Your task to perform on an android device: Show the shopping cart on bestbuy. Search for alienware aurora on bestbuy, select the first entry, and add it to the cart. Image 0: 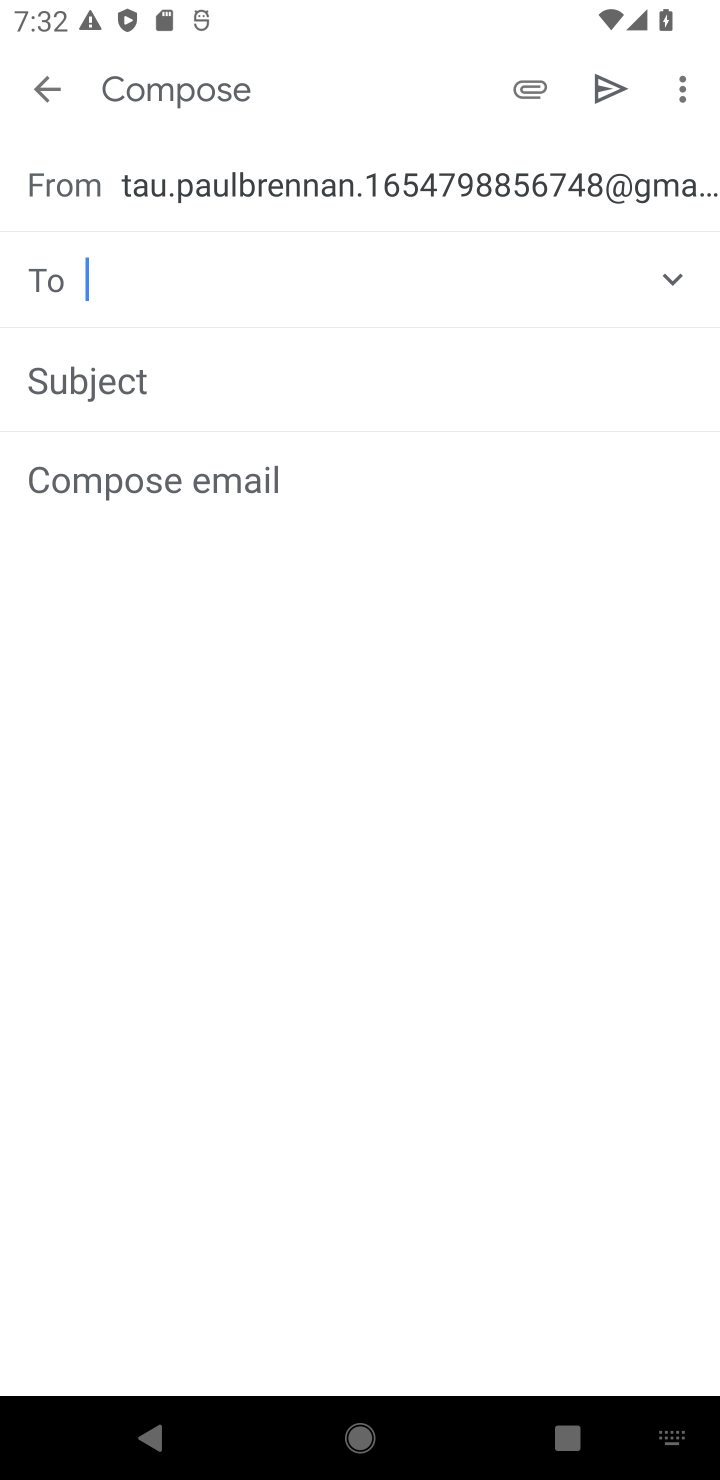
Step 0: press home button
Your task to perform on an android device: Show the shopping cart on bestbuy. Search for alienware aurora on bestbuy, select the first entry, and add it to the cart. Image 1: 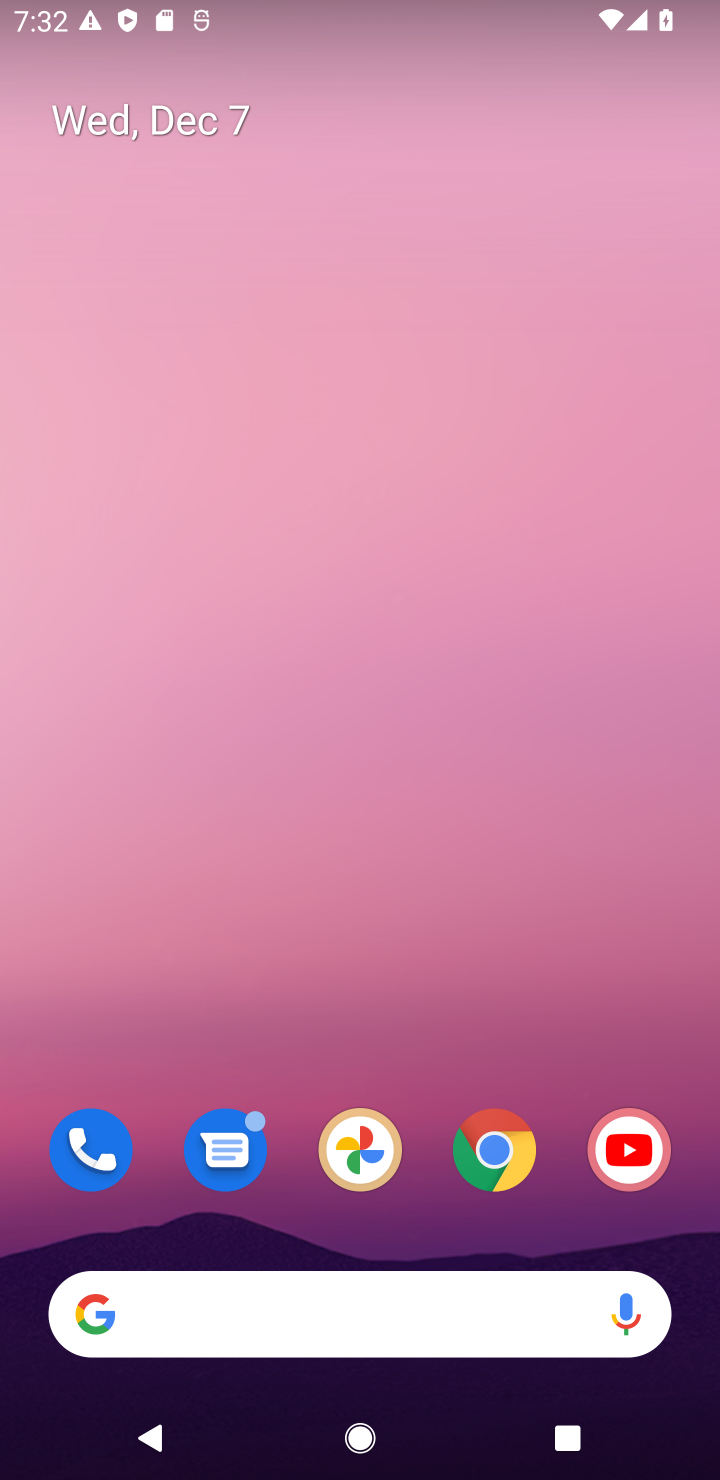
Step 1: click (491, 1120)
Your task to perform on an android device: Show the shopping cart on bestbuy. Search for alienware aurora on bestbuy, select the first entry, and add it to the cart. Image 2: 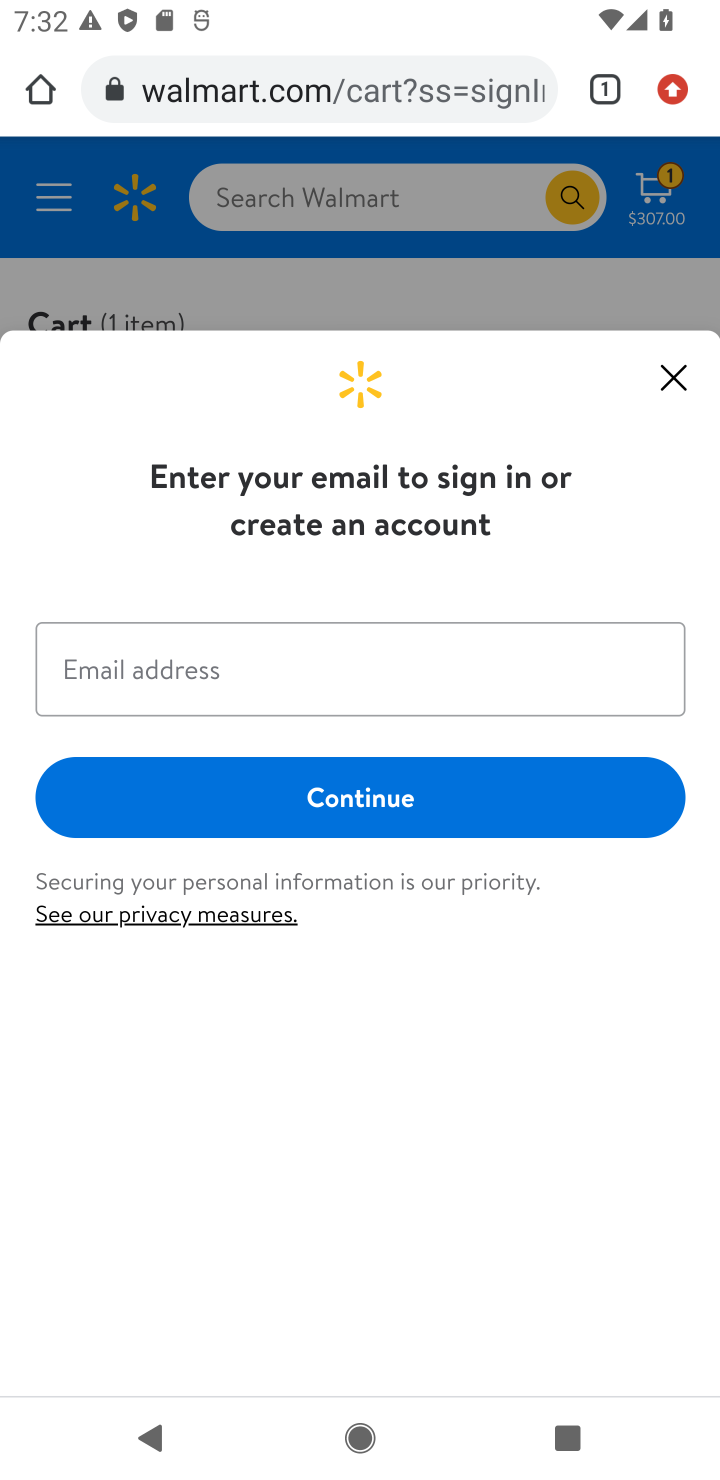
Step 2: click (311, 92)
Your task to perform on an android device: Show the shopping cart on bestbuy. Search for alienware aurora on bestbuy, select the first entry, and add it to the cart. Image 3: 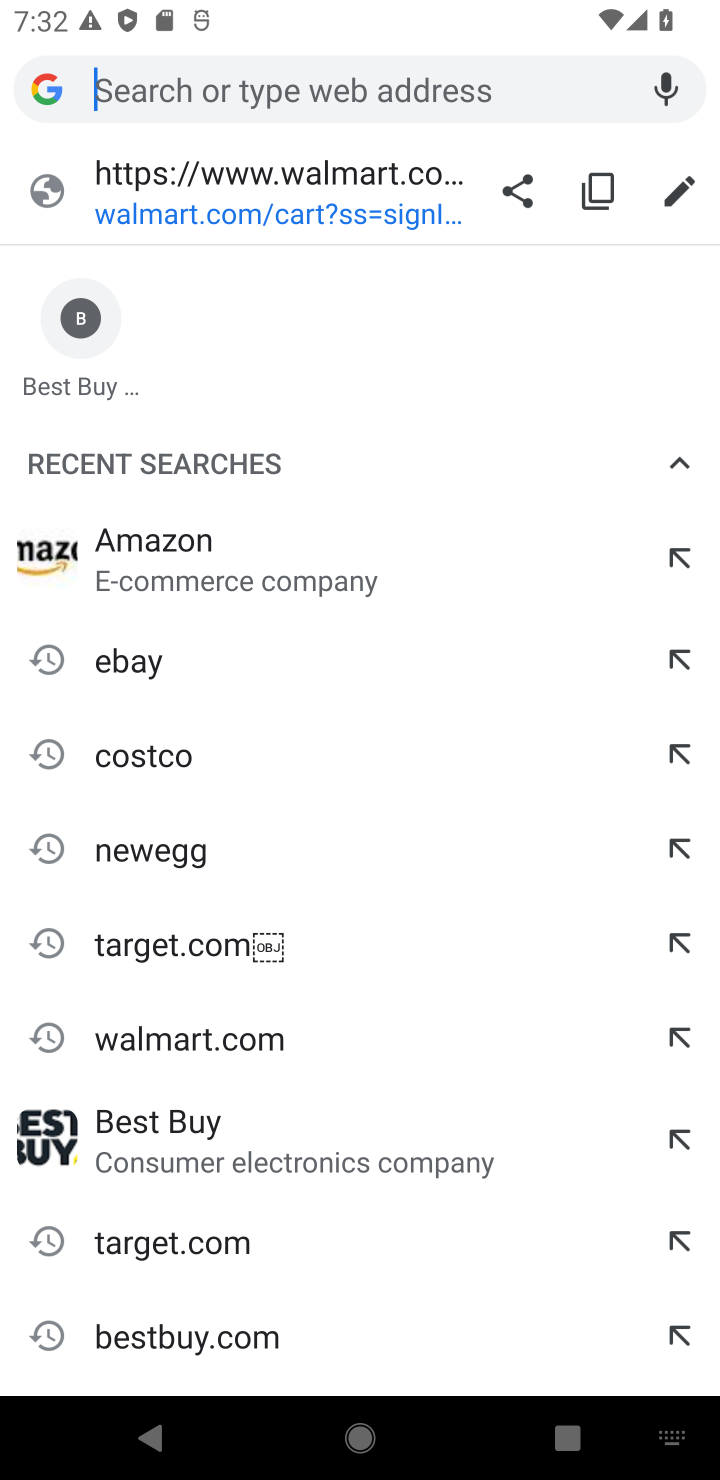
Step 3: click (237, 1135)
Your task to perform on an android device: Show the shopping cart on bestbuy. Search for alienware aurora on bestbuy, select the first entry, and add it to the cart. Image 4: 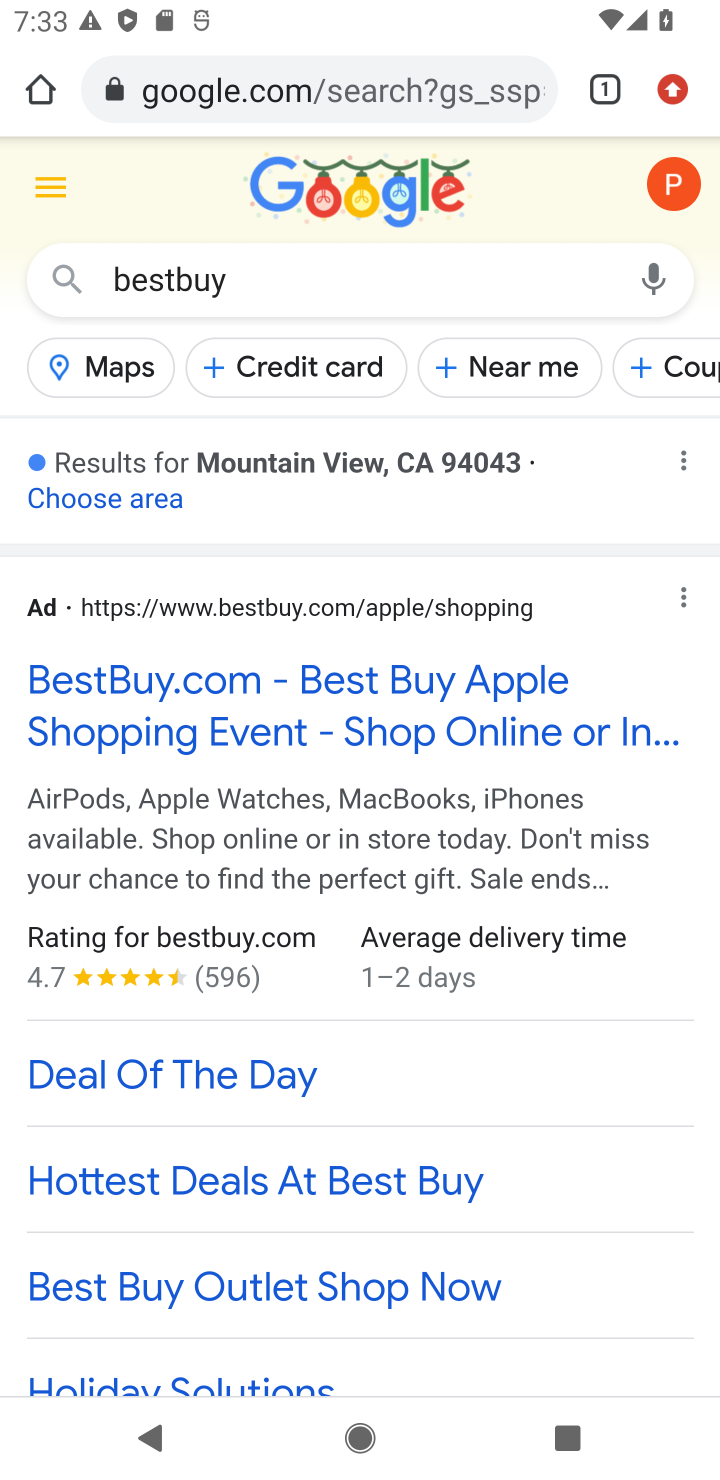
Step 4: click (201, 685)
Your task to perform on an android device: Show the shopping cart on bestbuy. Search for alienware aurora on bestbuy, select the first entry, and add it to the cart. Image 5: 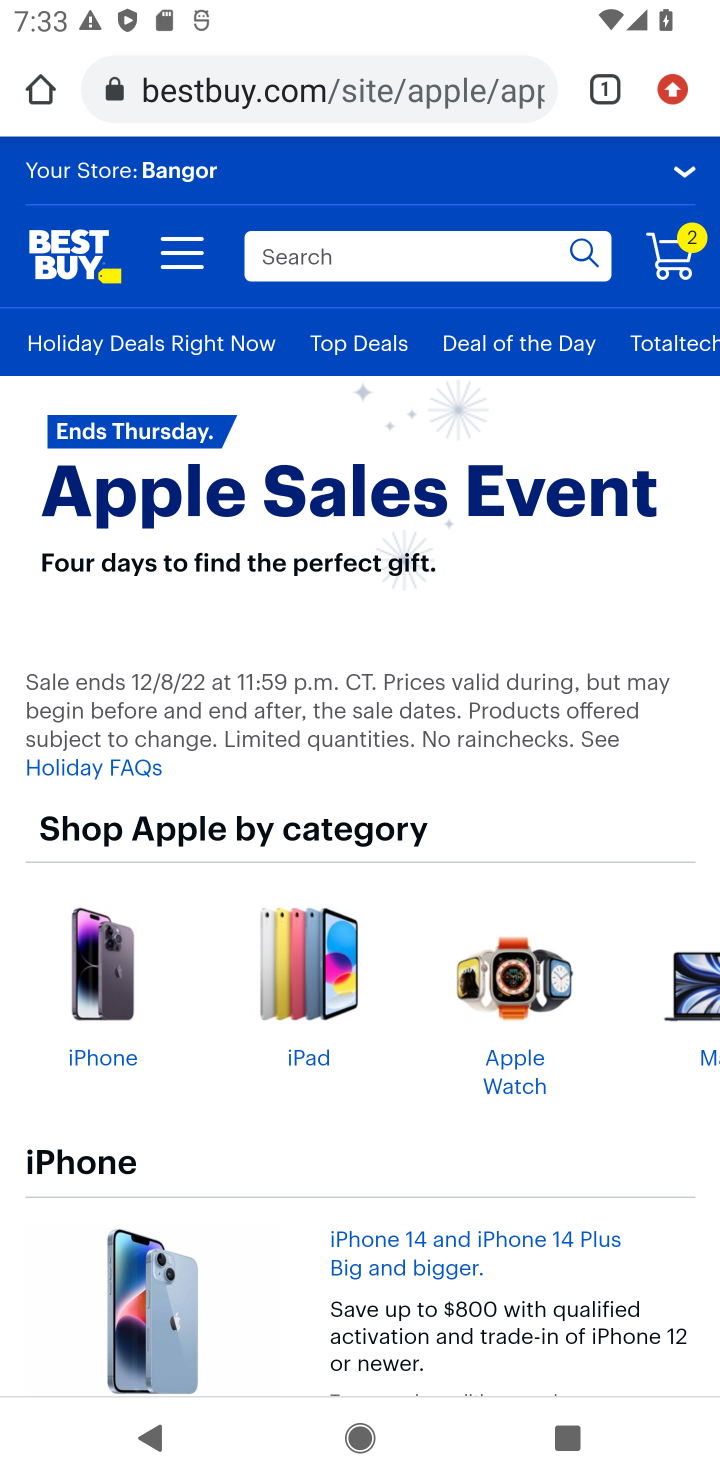
Step 5: click (396, 254)
Your task to perform on an android device: Show the shopping cart on bestbuy. Search for alienware aurora on bestbuy, select the first entry, and add it to the cart. Image 6: 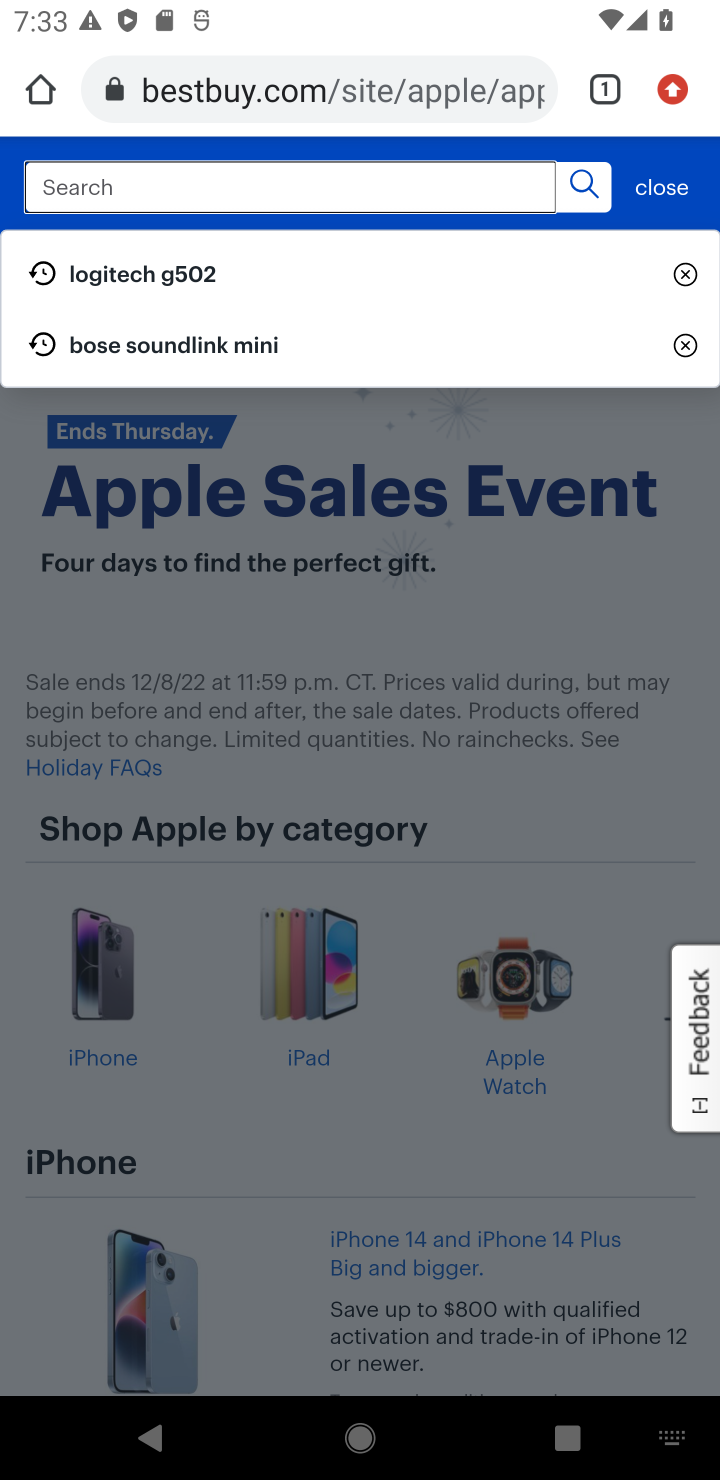
Step 6: type "alienware aurora "
Your task to perform on an android device: Show the shopping cart on bestbuy. Search for alienware aurora on bestbuy, select the first entry, and add it to the cart. Image 7: 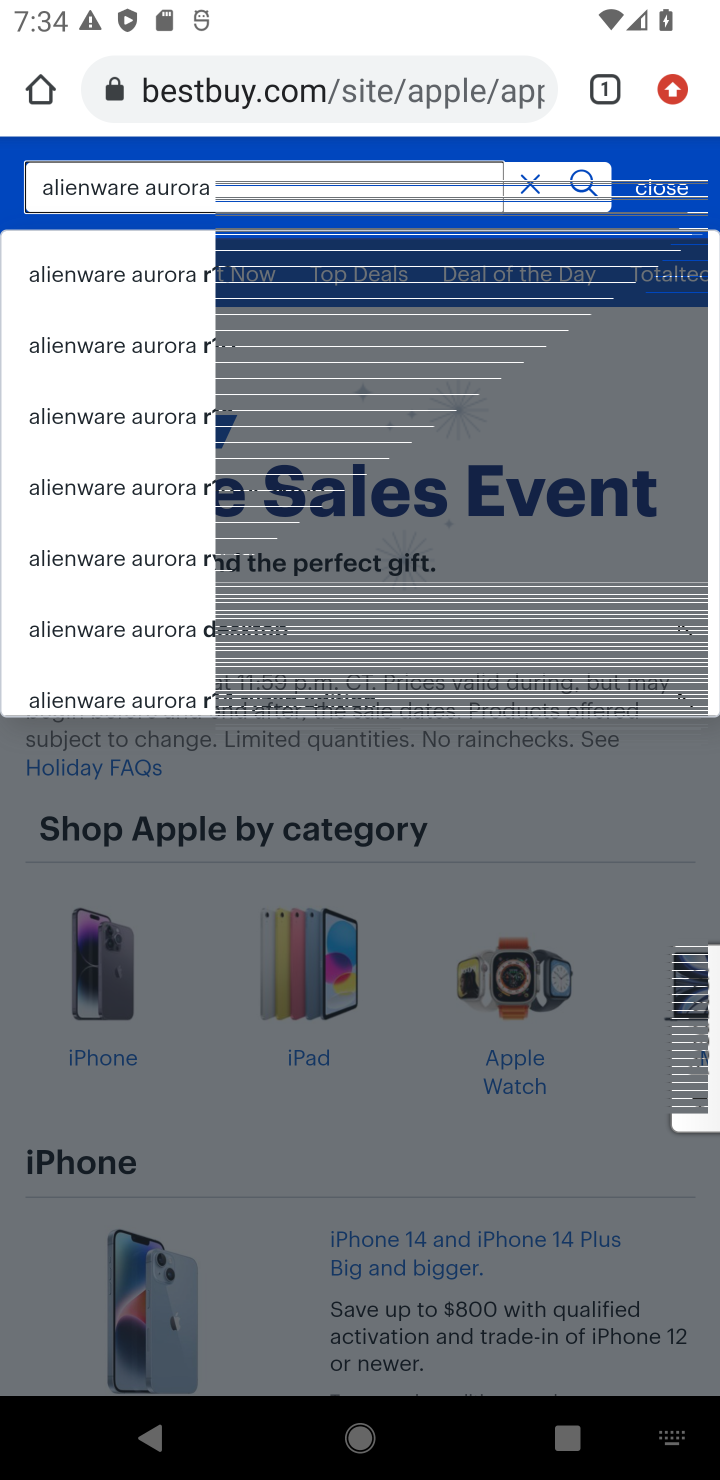
Step 7: click (195, 274)
Your task to perform on an android device: Show the shopping cart on bestbuy. Search for alienware aurora on bestbuy, select the first entry, and add it to the cart. Image 8: 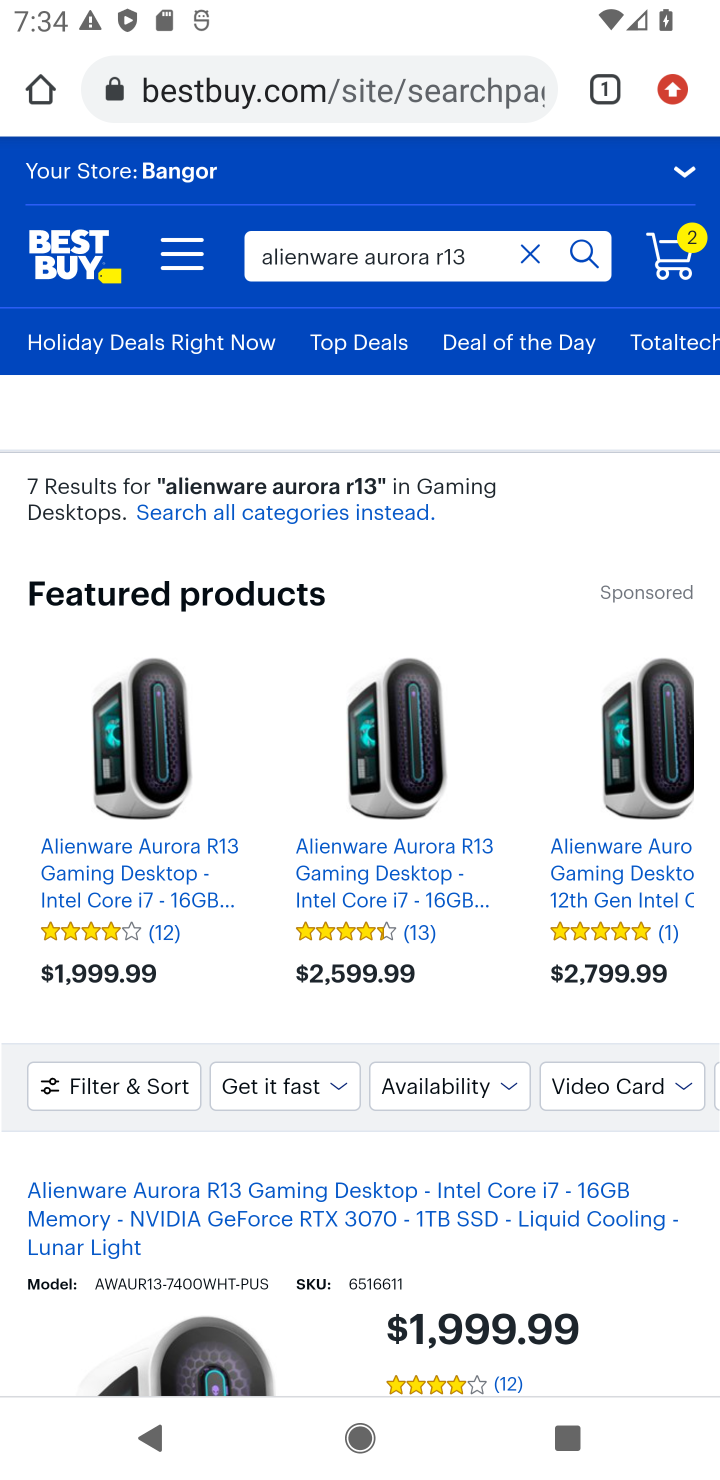
Step 8: click (277, 1352)
Your task to perform on an android device: Show the shopping cart on bestbuy. Search for alienware aurora on bestbuy, select the first entry, and add it to the cart. Image 9: 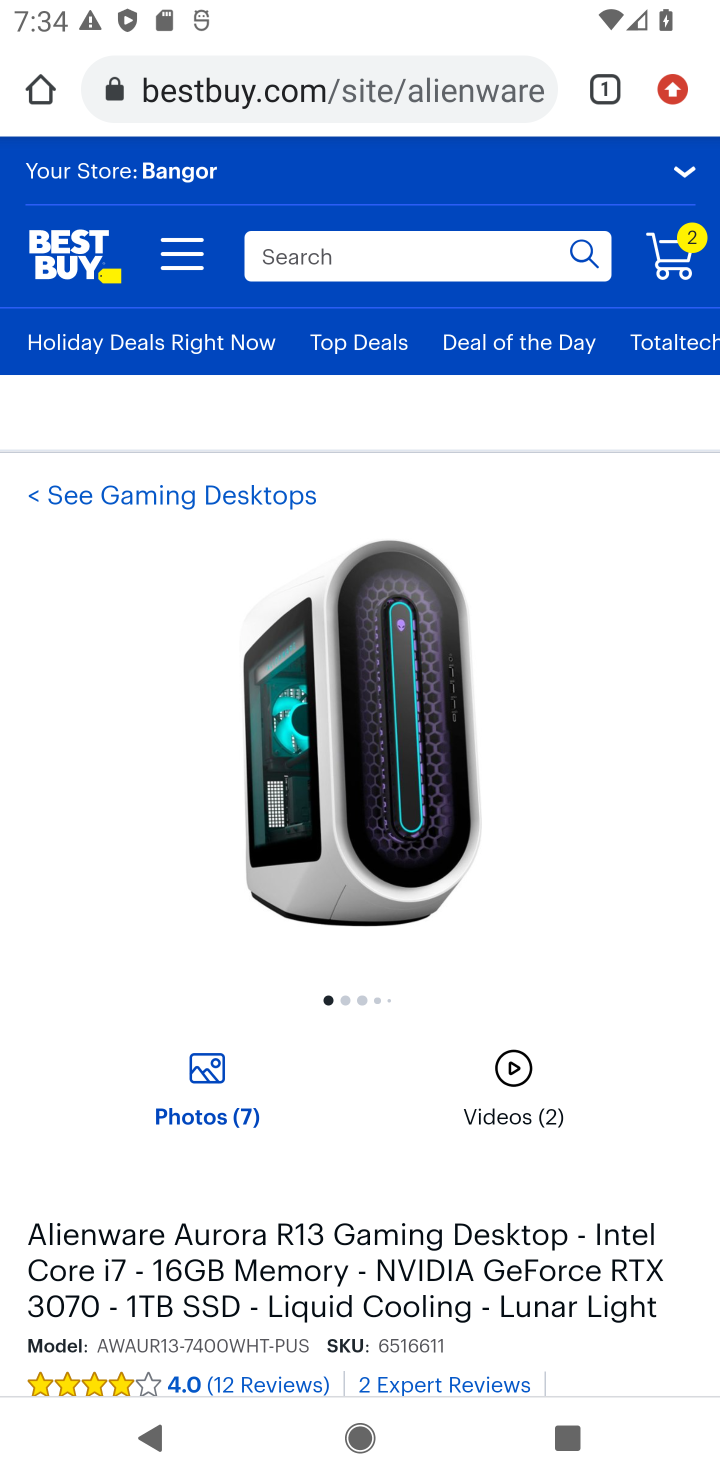
Step 9: drag from (395, 1311) to (388, 421)
Your task to perform on an android device: Show the shopping cart on bestbuy. Search for alienware aurora on bestbuy, select the first entry, and add it to the cart. Image 10: 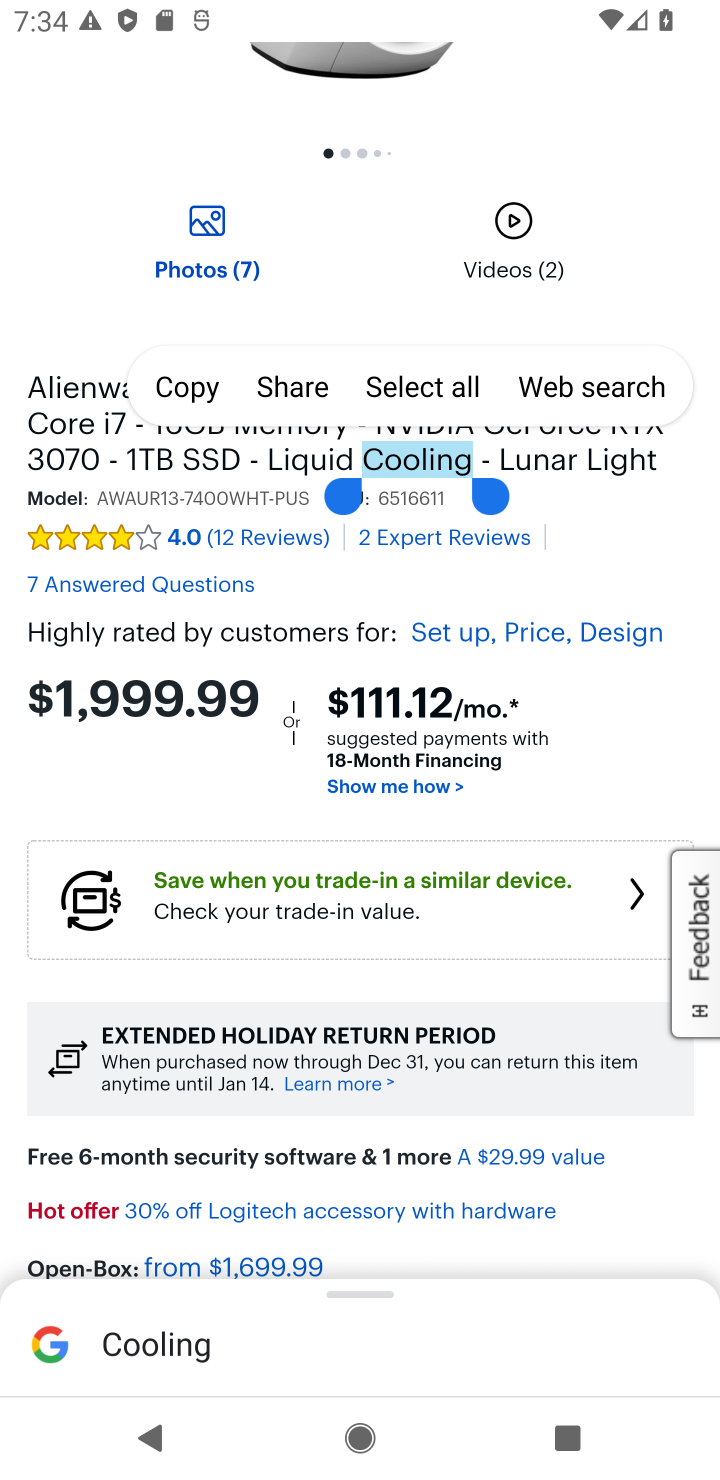
Step 10: drag from (436, 1156) to (404, 213)
Your task to perform on an android device: Show the shopping cart on bestbuy. Search for alienware aurora on bestbuy, select the first entry, and add it to the cart. Image 11: 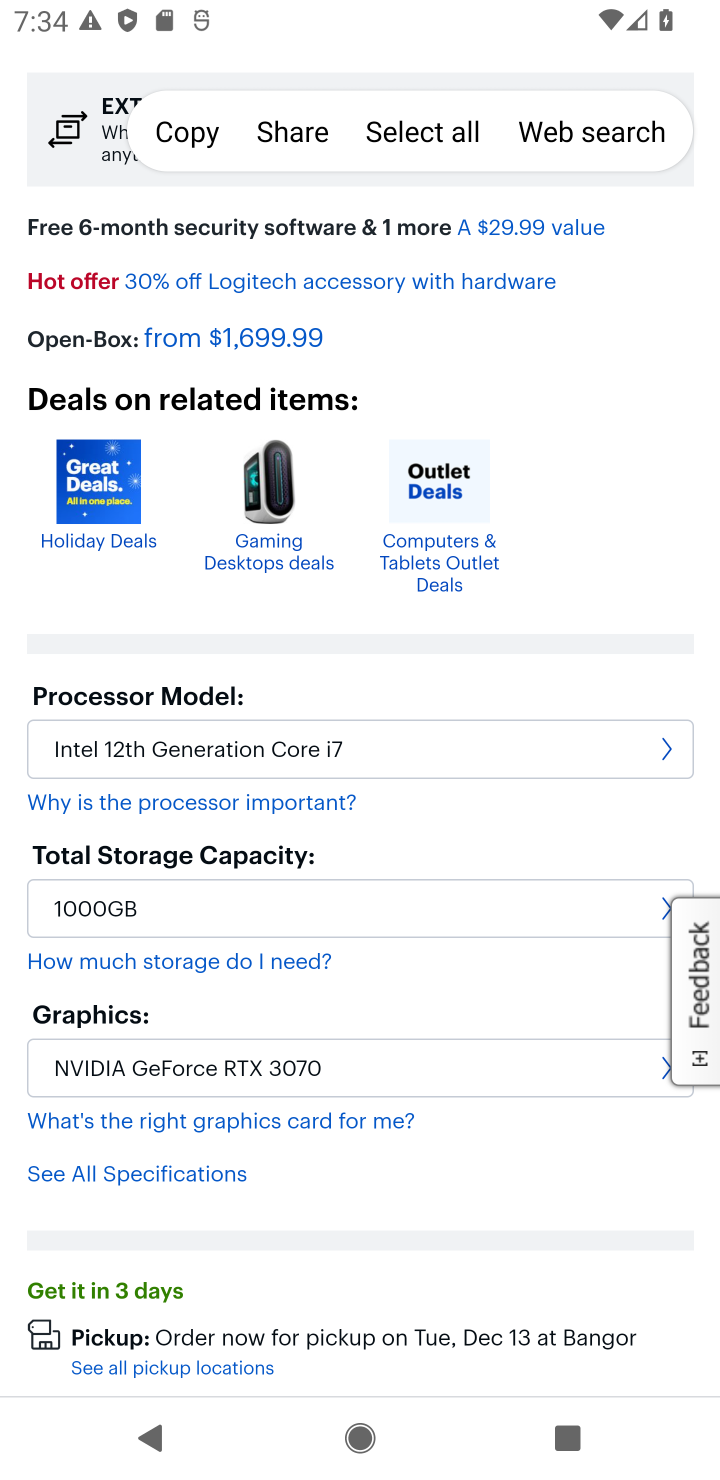
Step 11: drag from (444, 1285) to (380, 289)
Your task to perform on an android device: Show the shopping cart on bestbuy. Search for alienware aurora on bestbuy, select the first entry, and add it to the cart. Image 12: 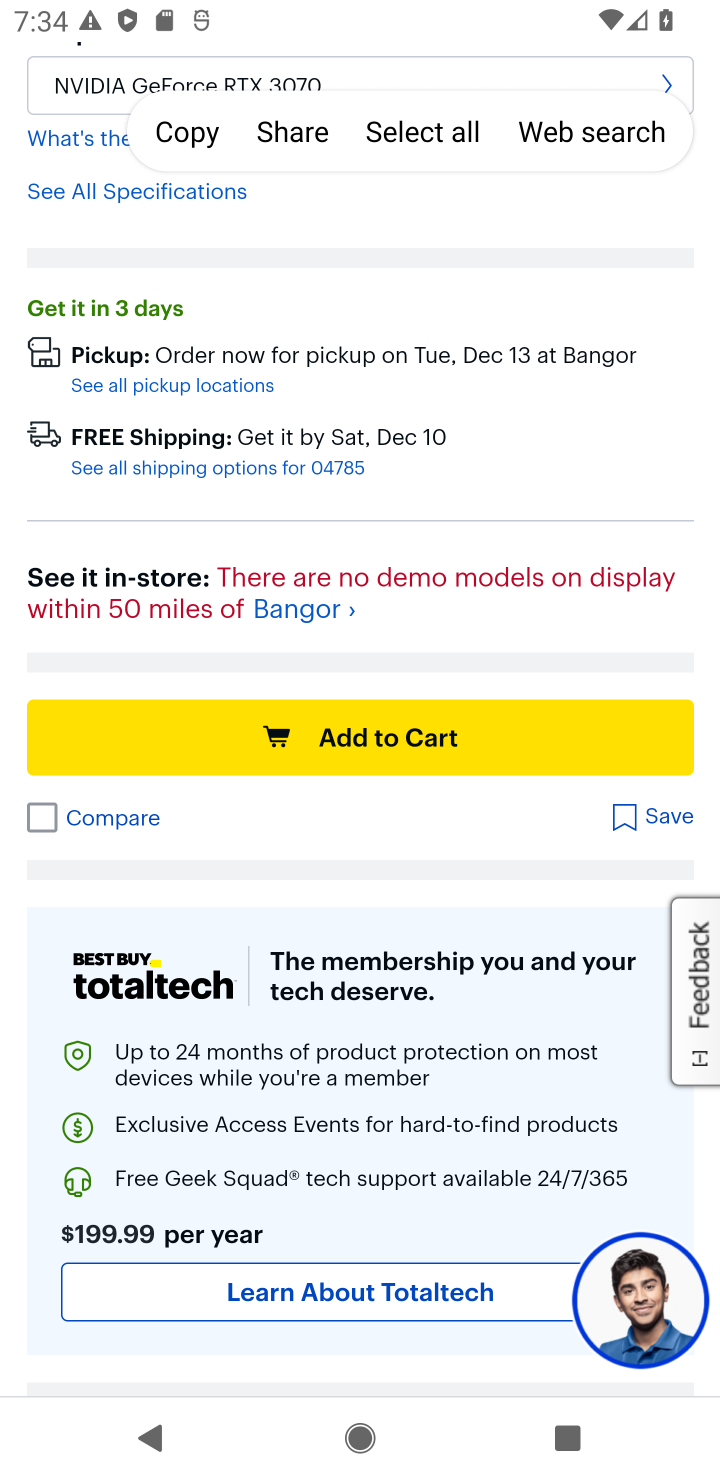
Step 12: click (378, 725)
Your task to perform on an android device: Show the shopping cart on bestbuy. Search for alienware aurora on bestbuy, select the first entry, and add it to the cart. Image 13: 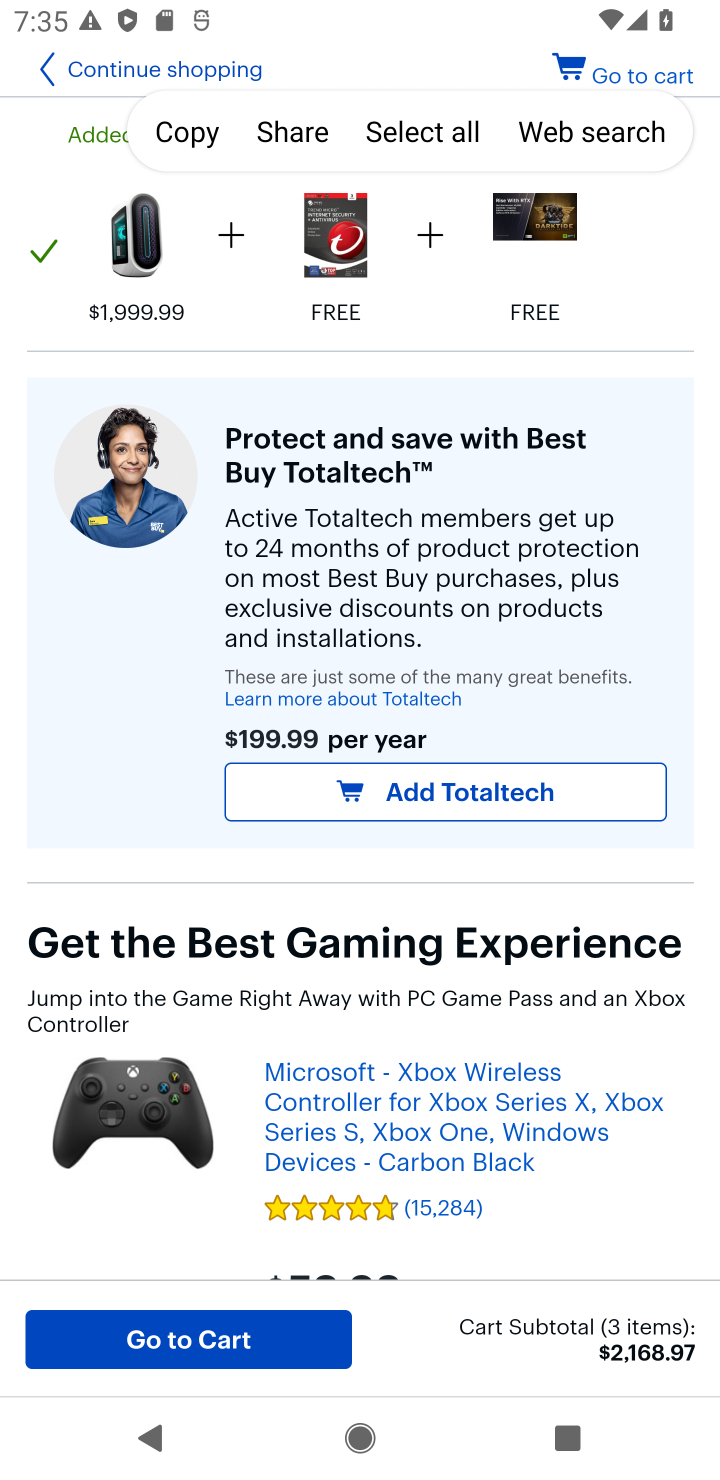
Step 13: task complete